Your task to perform on an android device: open chrome privacy settings Image 0: 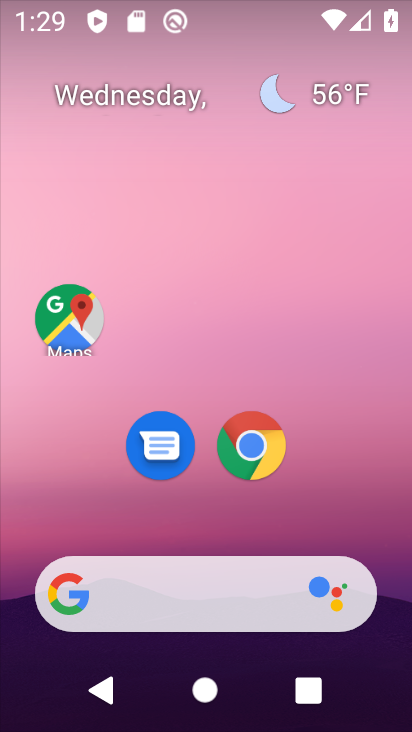
Step 0: click (246, 455)
Your task to perform on an android device: open chrome privacy settings Image 1: 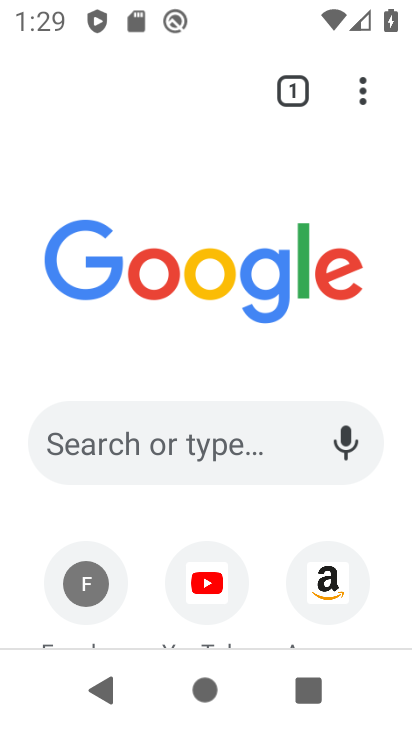
Step 1: drag from (357, 101) to (148, 483)
Your task to perform on an android device: open chrome privacy settings Image 2: 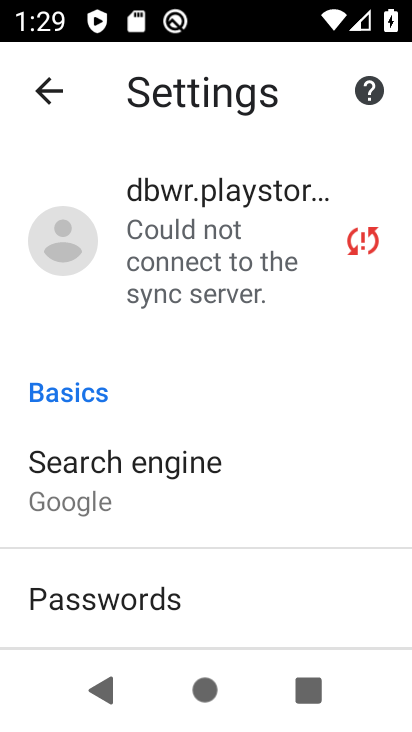
Step 2: drag from (166, 608) to (166, 24)
Your task to perform on an android device: open chrome privacy settings Image 3: 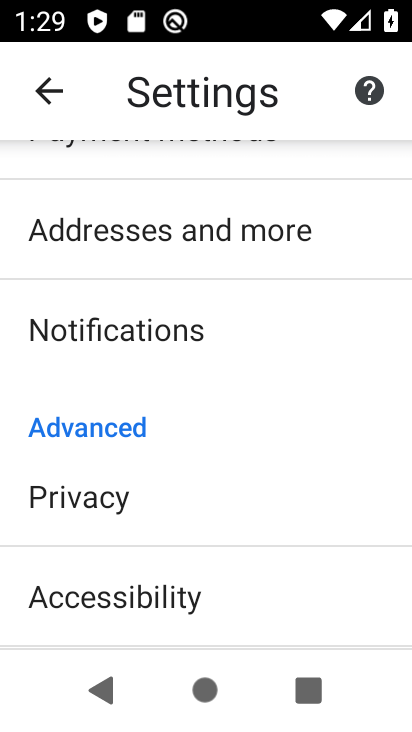
Step 3: click (102, 514)
Your task to perform on an android device: open chrome privacy settings Image 4: 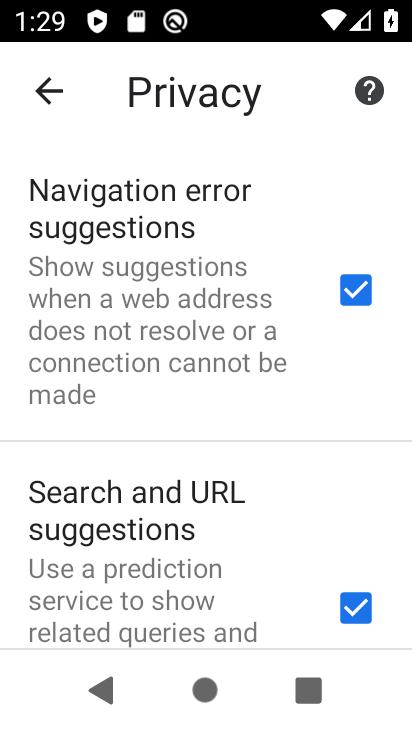
Step 4: task complete